Your task to perform on an android device: open chrome privacy settings Image 0: 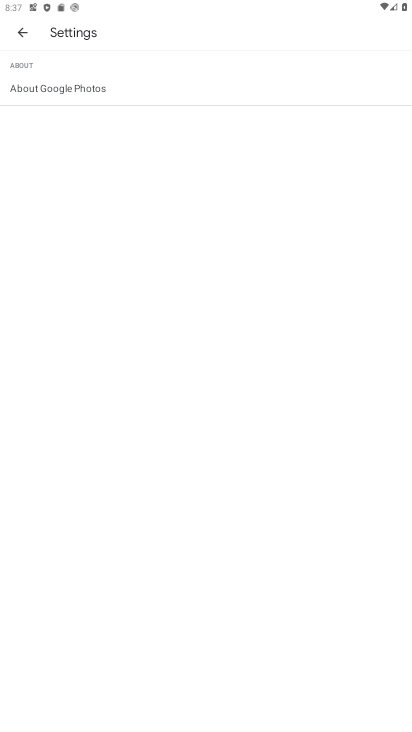
Step 0: press home button
Your task to perform on an android device: open chrome privacy settings Image 1: 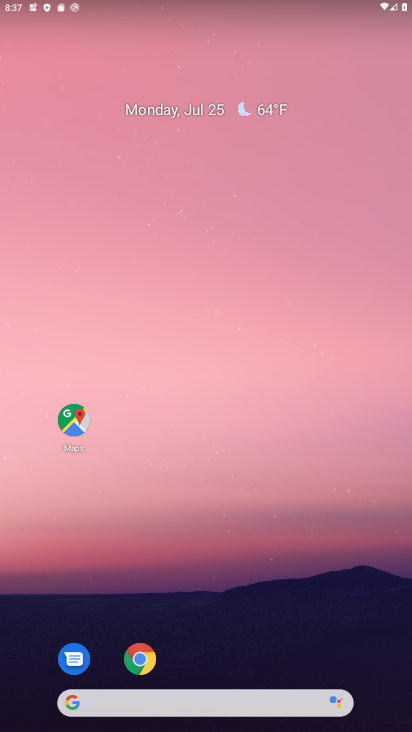
Step 1: drag from (328, 609) to (334, 65)
Your task to perform on an android device: open chrome privacy settings Image 2: 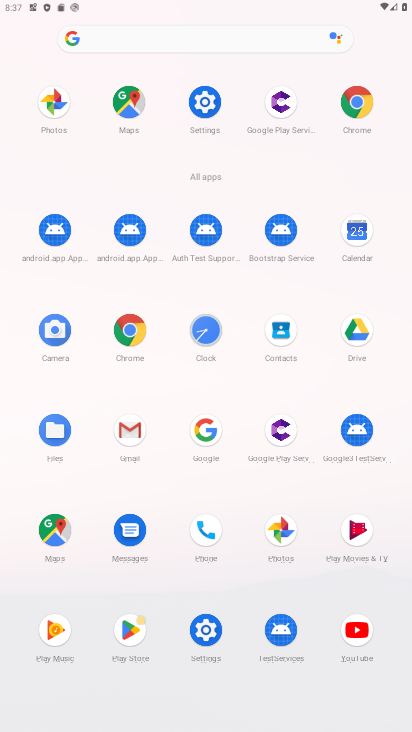
Step 2: click (124, 332)
Your task to perform on an android device: open chrome privacy settings Image 3: 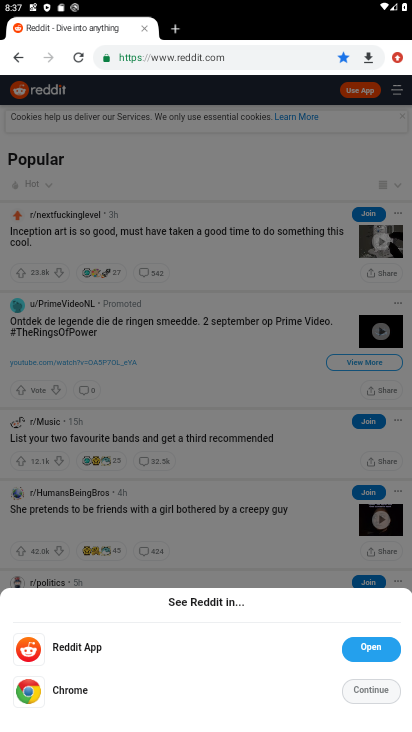
Step 3: click (396, 57)
Your task to perform on an android device: open chrome privacy settings Image 4: 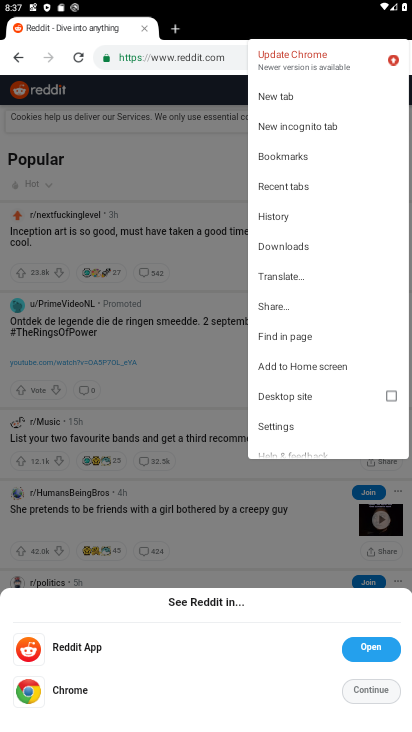
Step 4: click (289, 426)
Your task to perform on an android device: open chrome privacy settings Image 5: 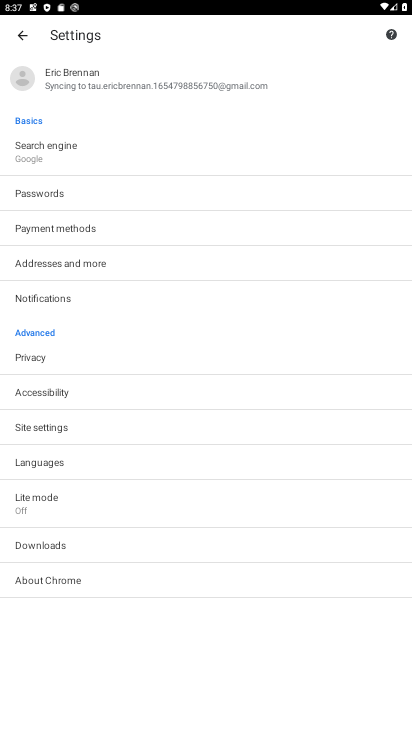
Step 5: click (149, 353)
Your task to perform on an android device: open chrome privacy settings Image 6: 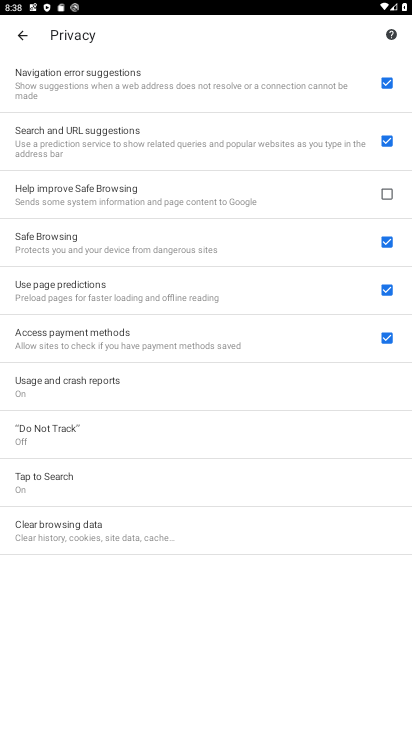
Step 6: task complete